Your task to perform on an android device: open a new tab in the chrome app Image 0: 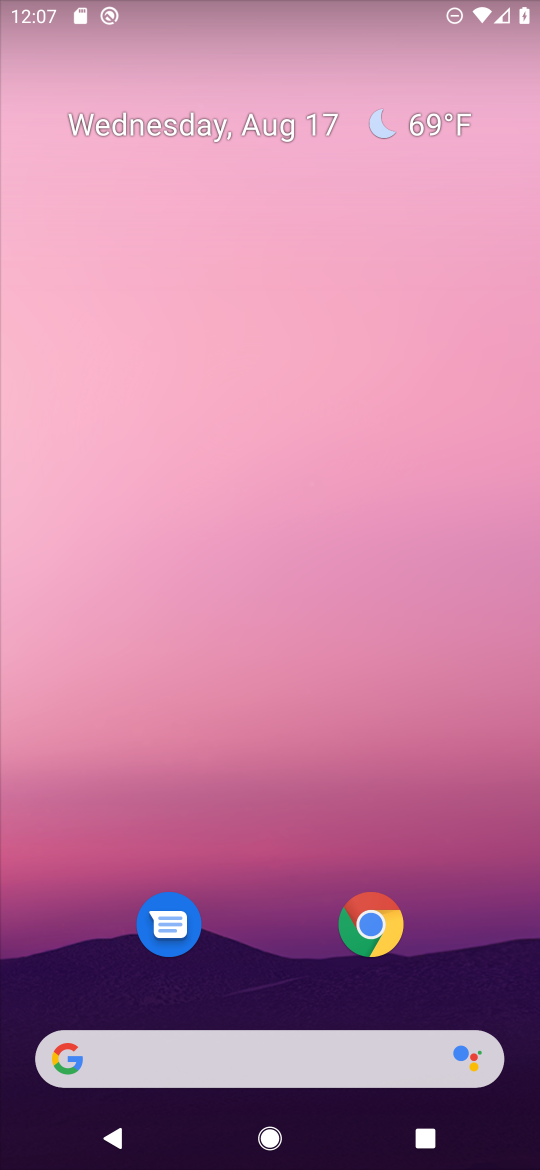
Step 0: click (372, 918)
Your task to perform on an android device: open a new tab in the chrome app Image 1: 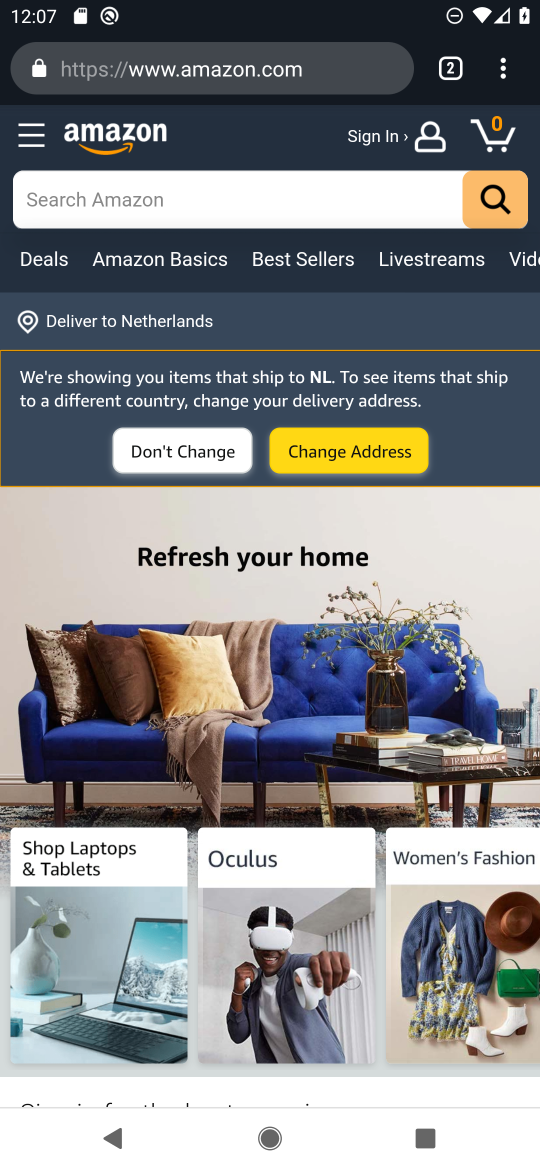
Step 1: click (446, 67)
Your task to perform on an android device: open a new tab in the chrome app Image 2: 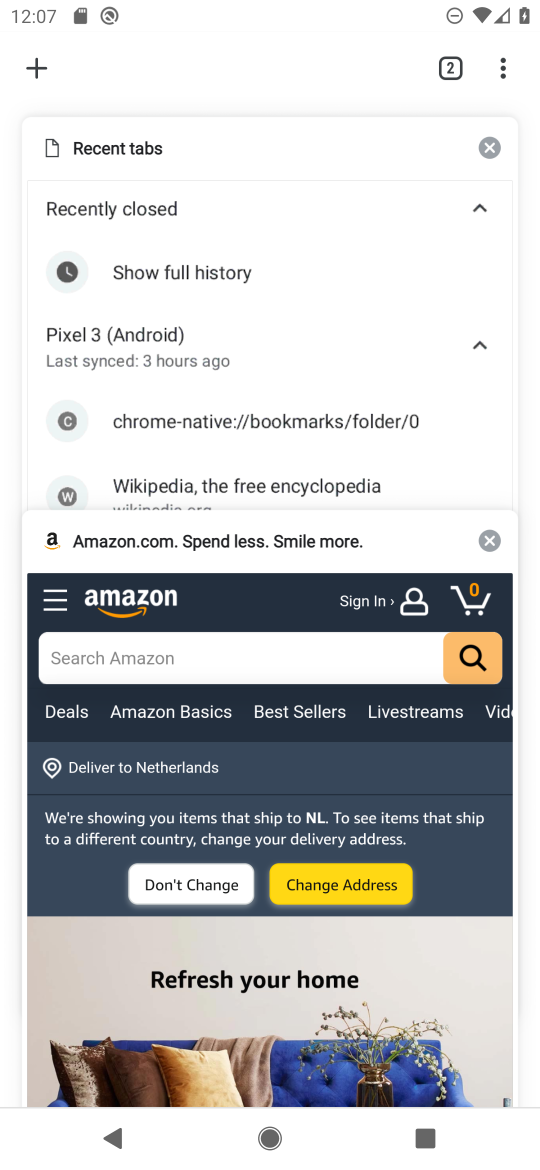
Step 2: click (37, 60)
Your task to perform on an android device: open a new tab in the chrome app Image 3: 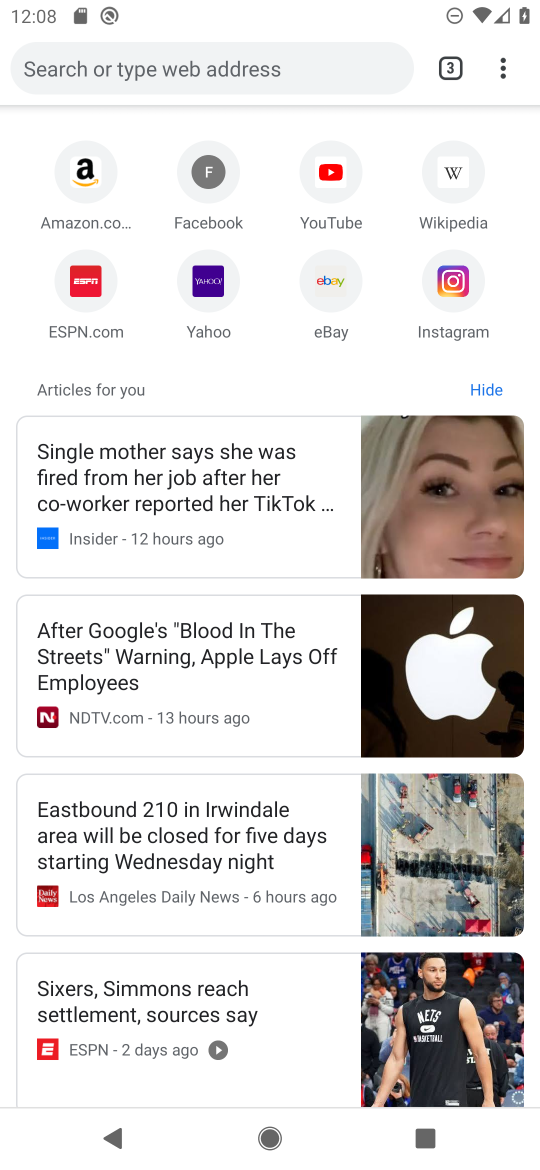
Step 3: task complete